Your task to perform on an android device: toggle javascript in the chrome app Image 0: 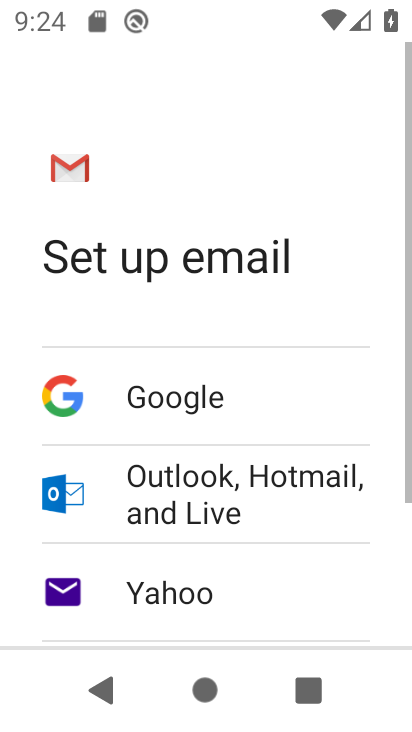
Step 0: press home button
Your task to perform on an android device: toggle javascript in the chrome app Image 1: 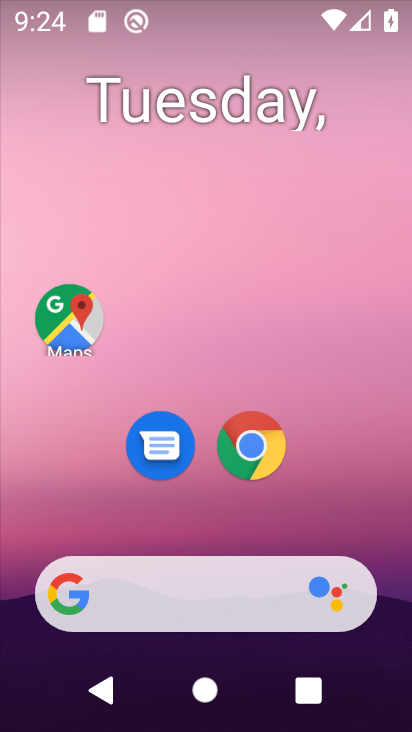
Step 1: click (258, 455)
Your task to perform on an android device: toggle javascript in the chrome app Image 2: 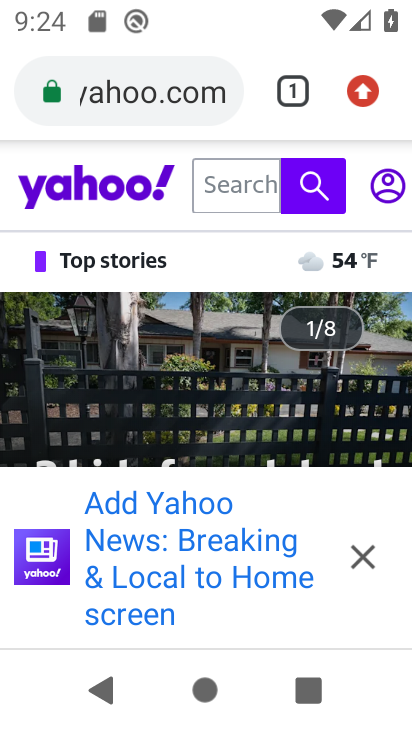
Step 2: click (361, 100)
Your task to perform on an android device: toggle javascript in the chrome app Image 3: 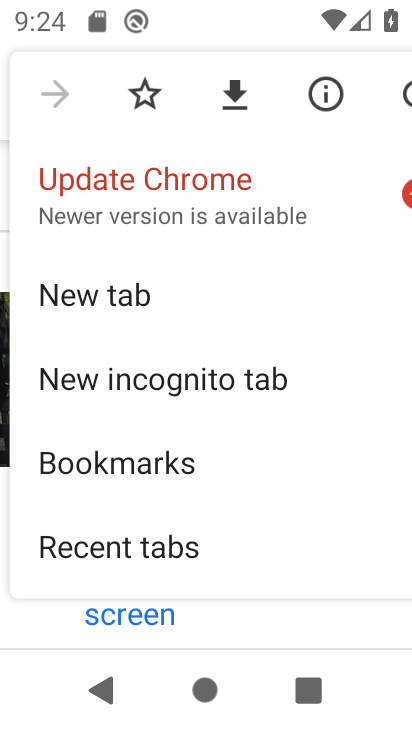
Step 3: drag from (178, 542) to (260, 71)
Your task to perform on an android device: toggle javascript in the chrome app Image 4: 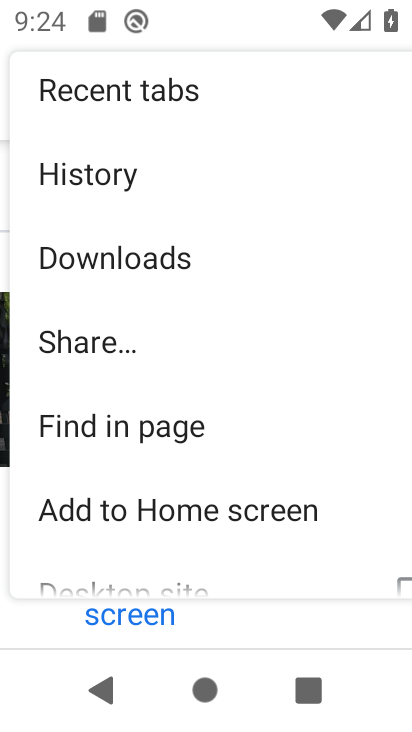
Step 4: drag from (122, 483) to (185, 110)
Your task to perform on an android device: toggle javascript in the chrome app Image 5: 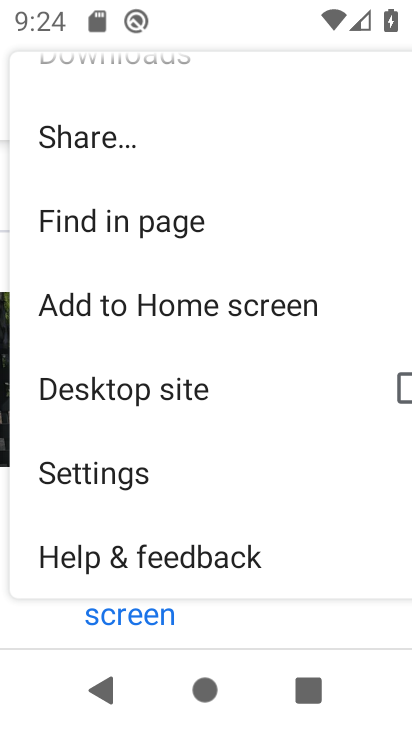
Step 5: click (112, 469)
Your task to perform on an android device: toggle javascript in the chrome app Image 6: 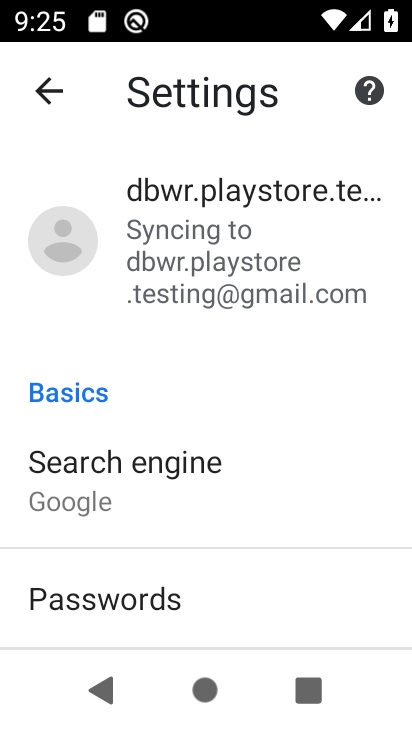
Step 6: drag from (157, 564) to (237, 4)
Your task to perform on an android device: toggle javascript in the chrome app Image 7: 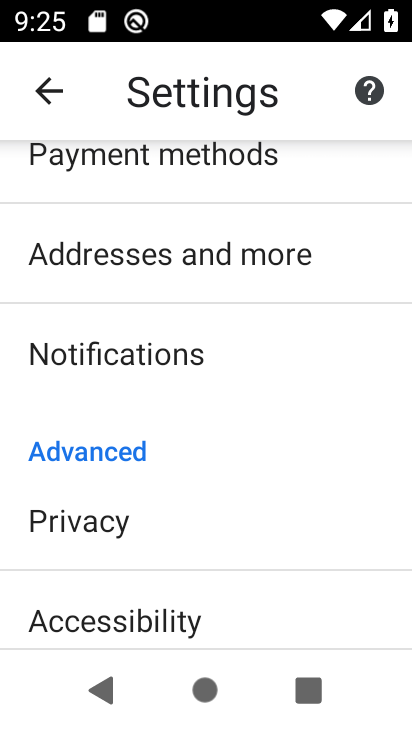
Step 7: drag from (203, 536) to (233, 109)
Your task to perform on an android device: toggle javascript in the chrome app Image 8: 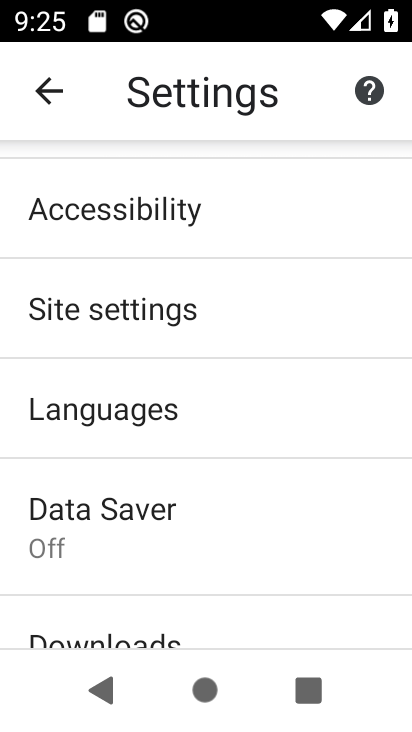
Step 8: drag from (185, 577) to (203, 184)
Your task to perform on an android device: toggle javascript in the chrome app Image 9: 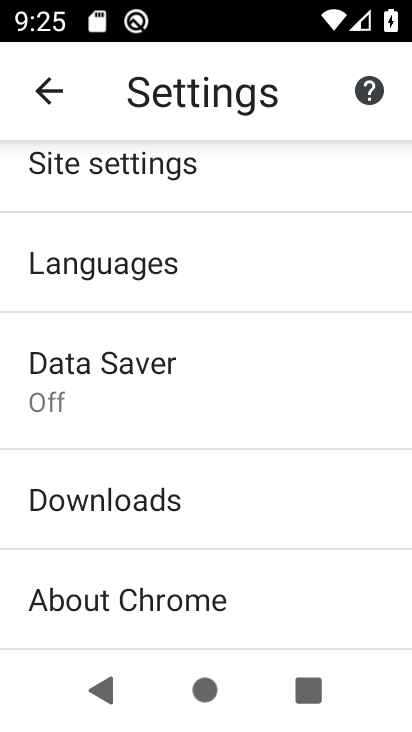
Step 9: click (172, 179)
Your task to perform on an android device: toggle javascript in the chrome app Image 10: 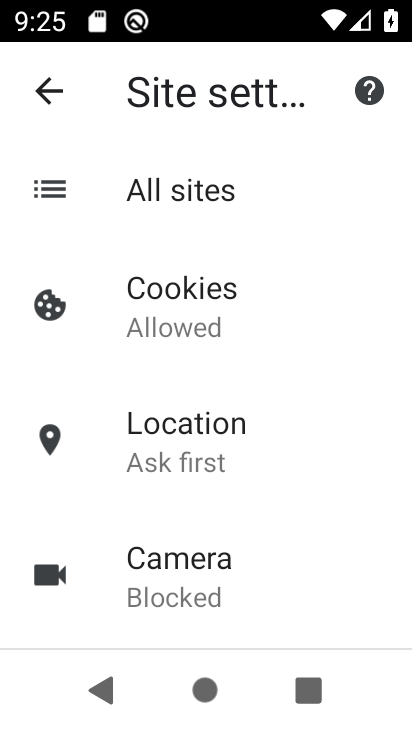
Step 10: drag from (222, 580) to (270, 8)
Your task to perform on an android device: toggle javascript in the chrome app Image 11: 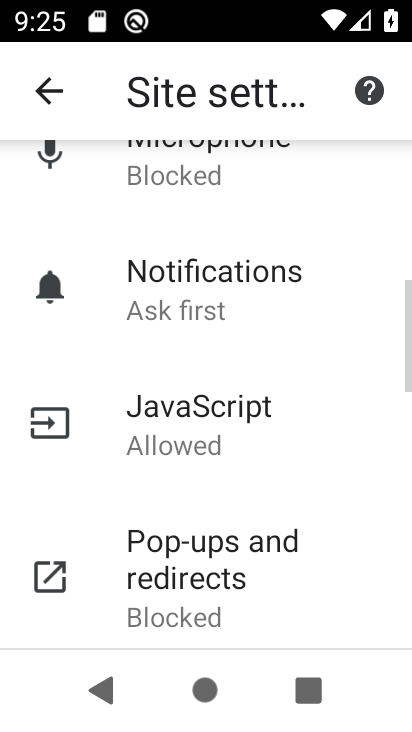
Step 11: click (201, 439)
Your task to perform on an android device: toggle javascript in the chrome app Image 12: 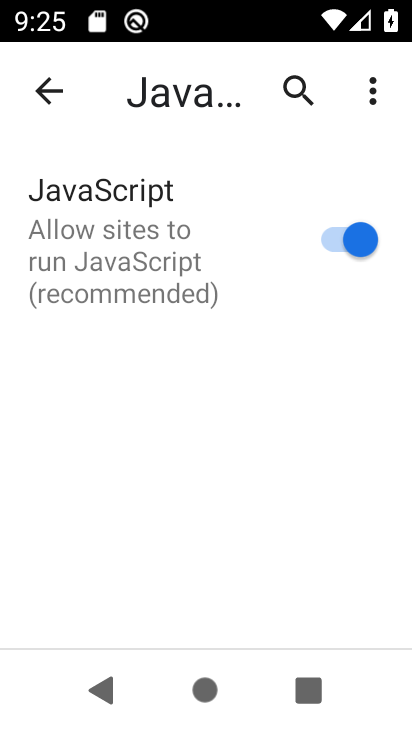
Step 12: click (344, 232)
Your task to perform on an android device: toggle javascript in the chrome app Image 13: 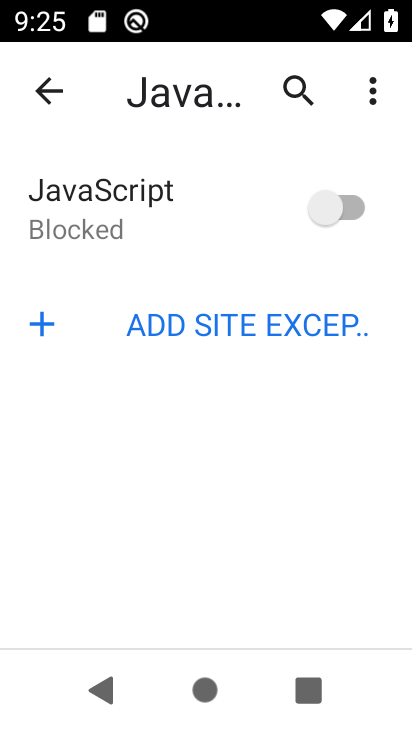
Step 13: task complete